Your task to perform on an android device: What's on my calendar tomorrow? Image 0: 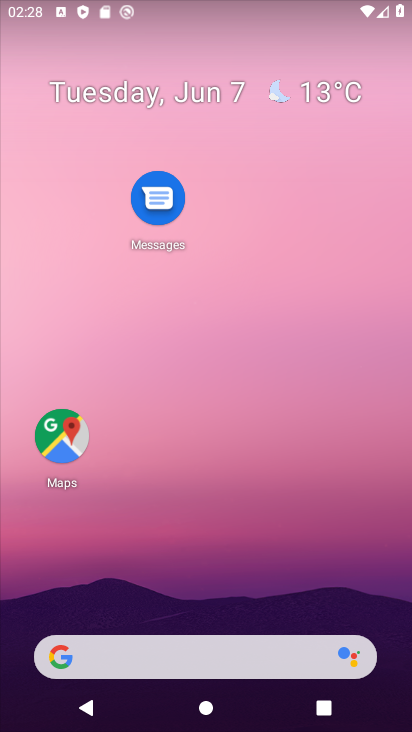
Step 0: drag from (229, 616) to (113, 13)
Your task to perform on an android device: What's on my calendar tomorrow? Image 1: 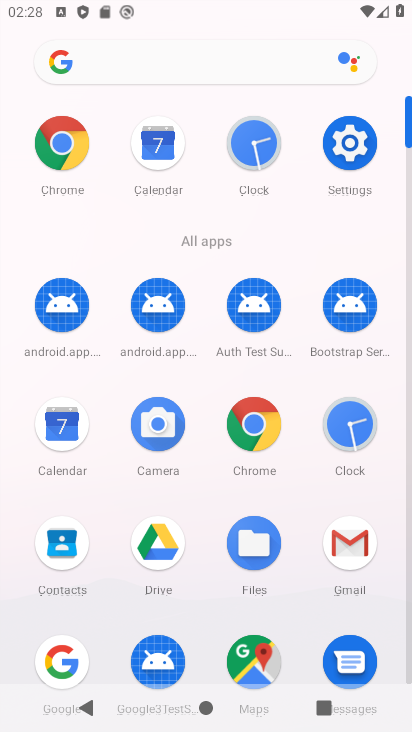
Step 1: click (68, 447)
Your task to perform on an android device: What's on my calendar tomorrow? Image 2: 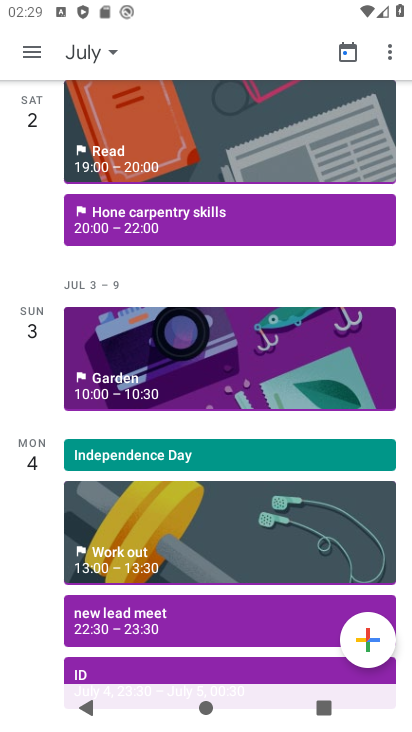
Step 2: drag from (204, 205) to (158, 562)
Your task to perform on an android device: What's on my calendar tomorrow? Image 3: 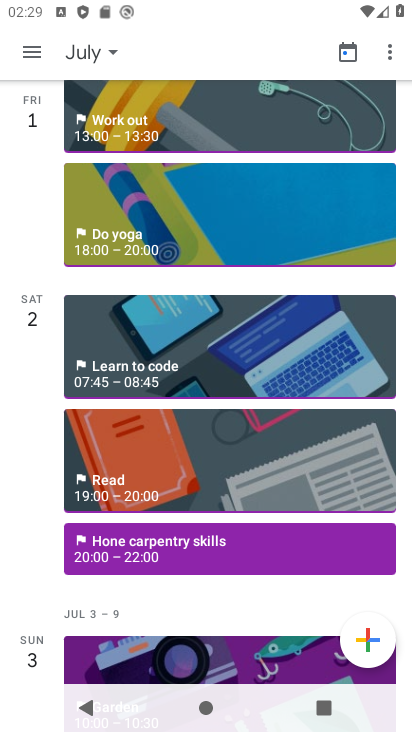
Step 3: drag from (220, 236) to (220, 579)
Your task to perform on an android device: What's on my calendar tomorrow? Image 4: 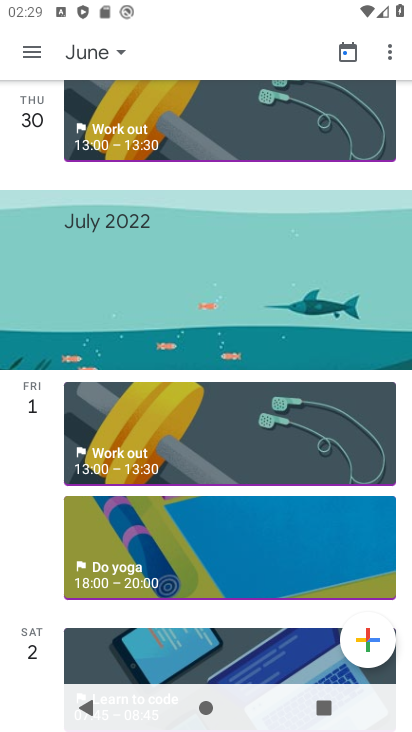
Step 4: drag from (178, 404) to (178, 597)
Your task to perform on an android device: What's on my calendar tomorrow? Image 5: 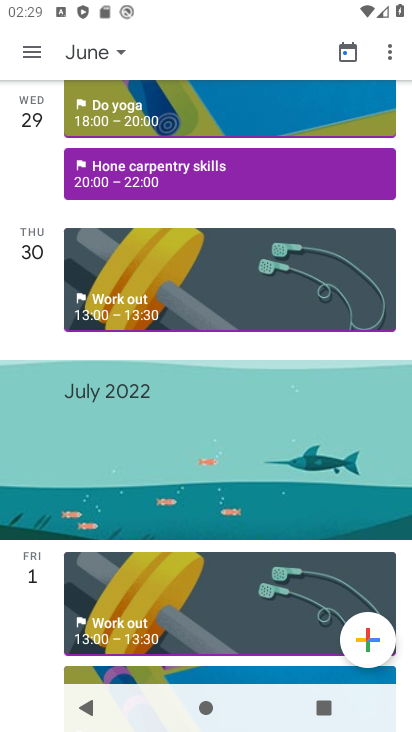
Step 5: drag from (196, 365) to (193, 571)
Your task to perform on an android device: What's on my calendar tomorrow? Image 6: 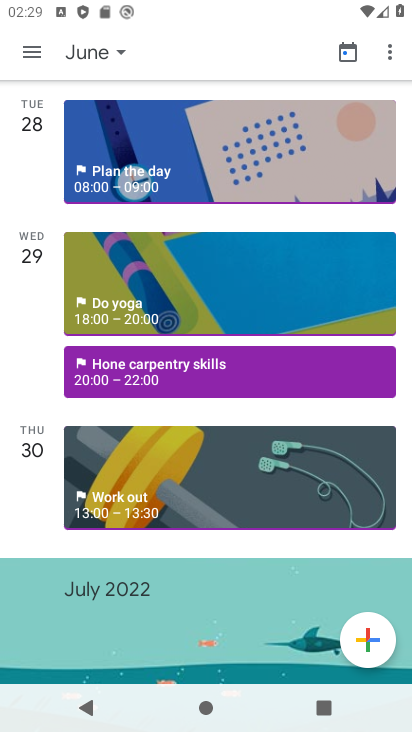
Step 6: drag from (192, 338) to (198, 601)
Your task to perform on an android device: What's on my calendar tomorrow? Image 7: 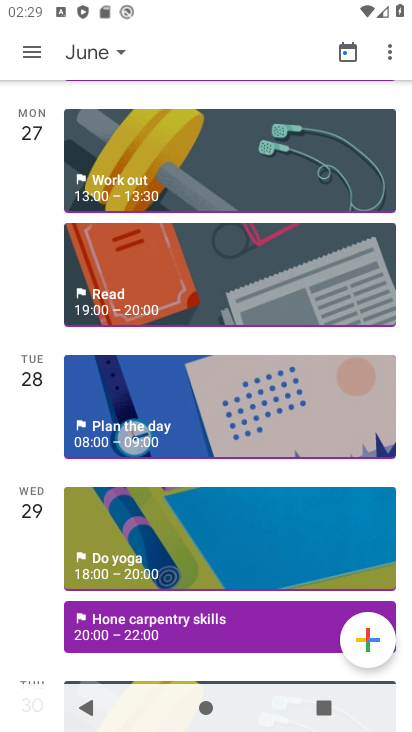
Step 7: drag from (189, 209) to (171, 416)
Your task to perform on an android device: What's on my calendar tomorrow? Image 8: 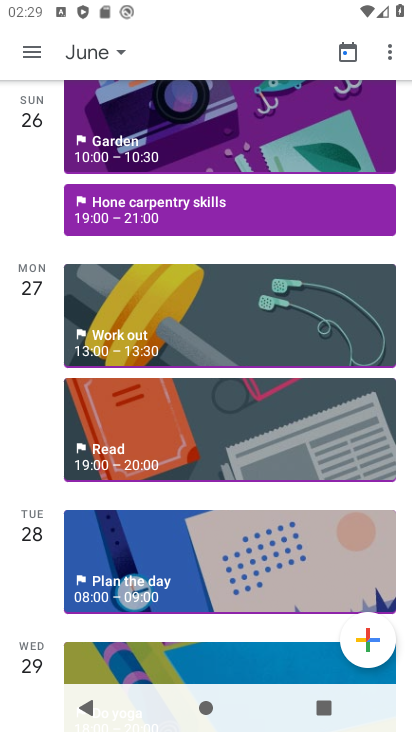
Step 8: click (45, 49)
Your task to perform on an android device: What's on my calendar tomorrow? Image 9: 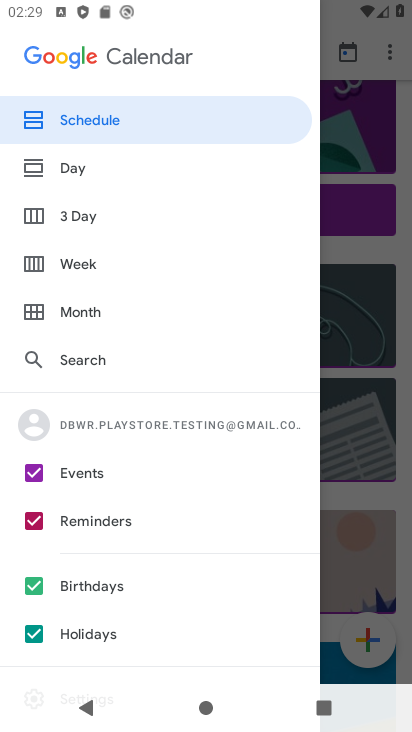
Step 9: click (69, 160)
Your task to perform on an android device: What's on my calendar tomorrow? Image 10: 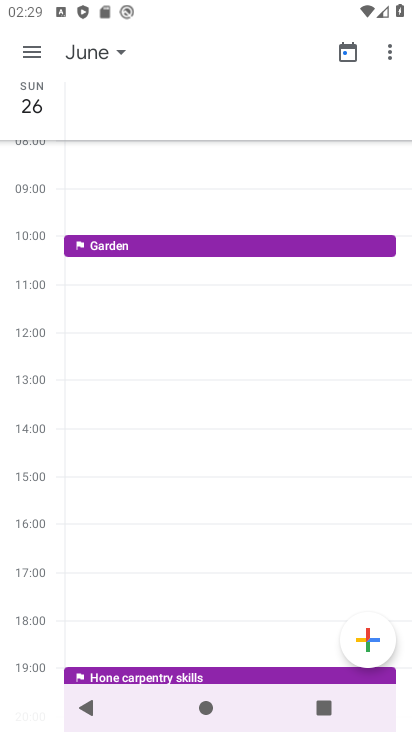
Step 10: drag from (127, 198) to (82, 651)
Your task to perform on an android device: What's on my calendar tomorrow? Image 11: 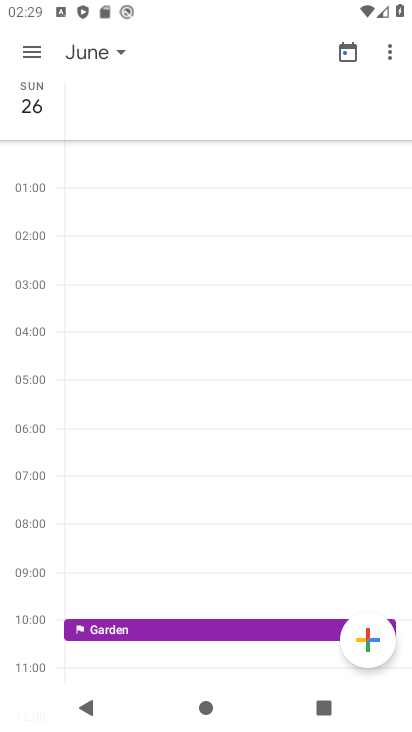
Step 11: click (54, 60)
Your task to perform on an android device: What's on my calendar tomorrow? Image 12: 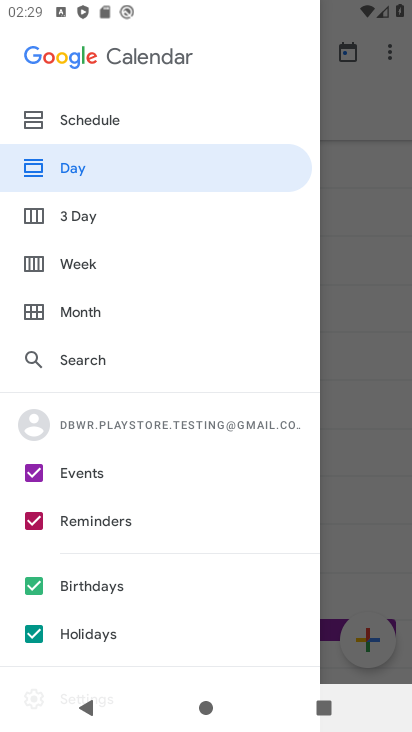
Step 12: click (75, 130)
Your task to perform on an android device: What's on my calendar tomorrow? Image 13: 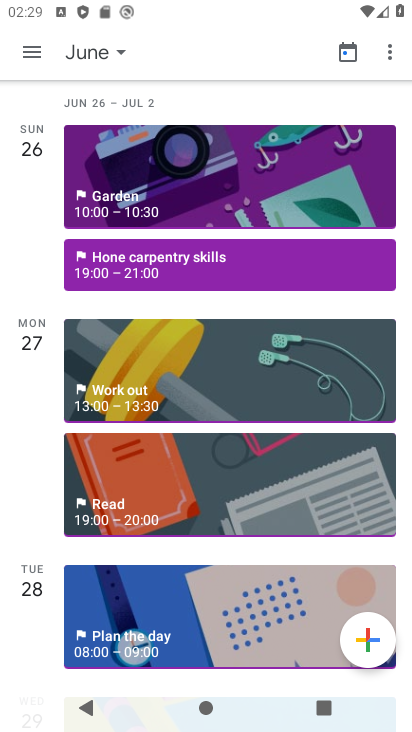
Step 13: drag from (207, 180) to (228, 680)
Your task to perform on an android device: What's on my calendar tomorrow? Image 14: 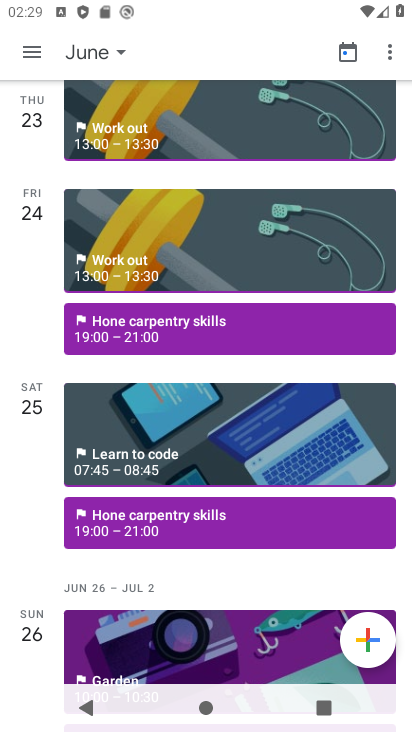
Step 14: drag from (232, 359) to (213, 596)
Your task to perform on an android device: What's on my calendar tomorrow? Image 15: 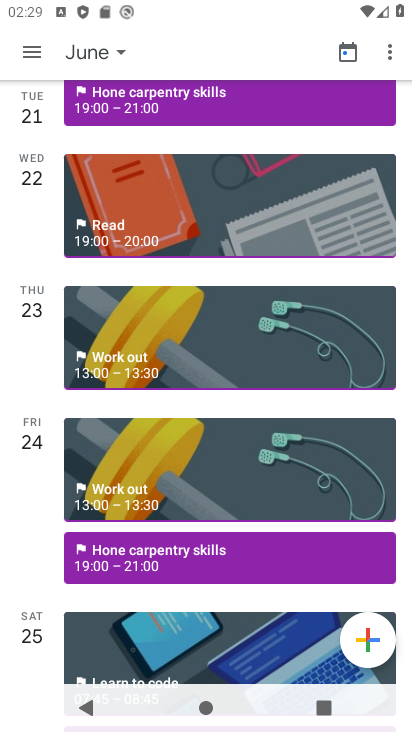
Step 15: drag from (195, 259) to (210, 530)
Your task to perform on an android device: What's on my calendar tomorrow? Image 16: 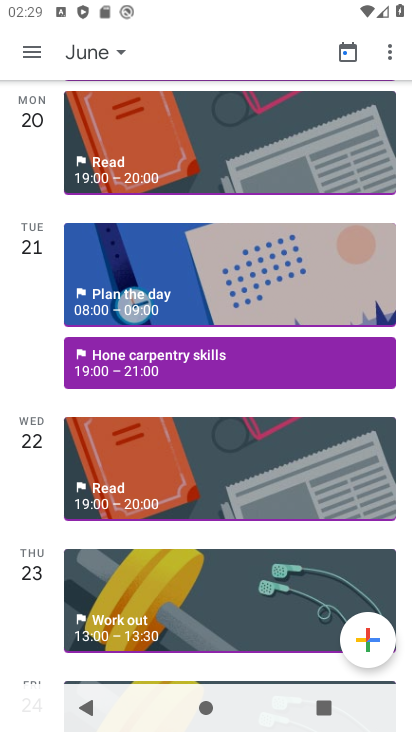
Step 16: drag from (189, 232) to (187, 388)
Your task to perform on an android device: What's on my calendar tomorrow? Image 17: 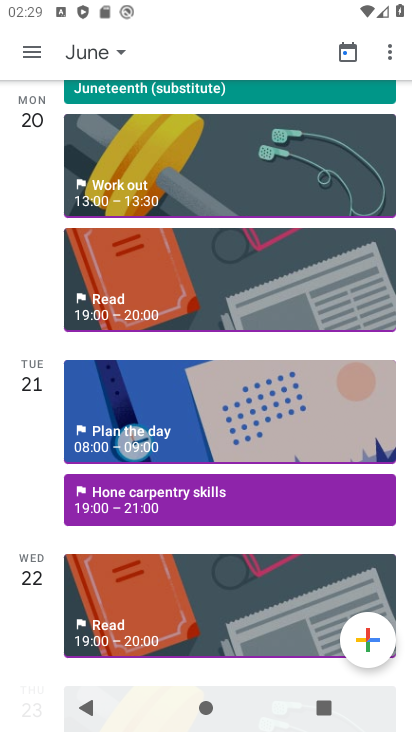
Step 17: drag from (154, 184) to (155, 403)
Your task to perform on an android device: What's on my calendar tomorrow? Image 18: 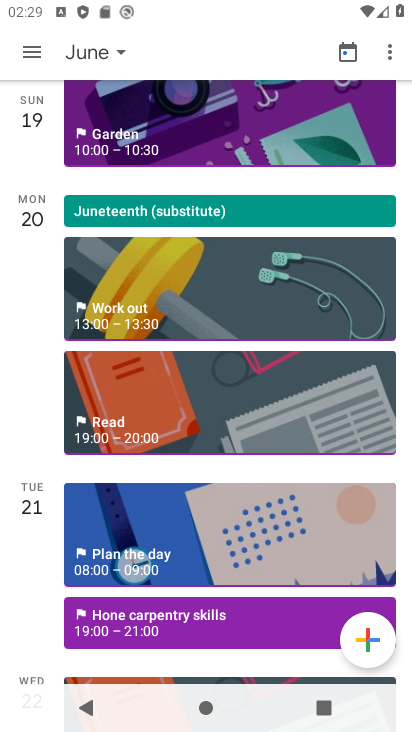
Step 18: drag from (187, 154) to (184, 306)
Your task to perform on an android device: What's on my calendar tomorrow? Image 19: 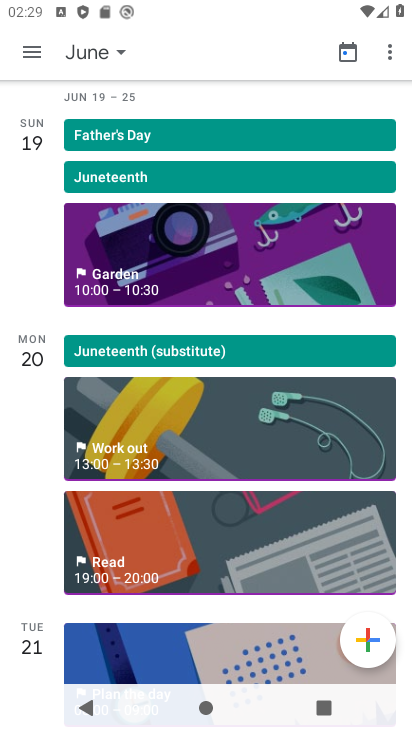
Step 19: drag from (208, 102) to (203, 317)
Your task to perform on an android device: What's on my calendar tomorrow? Image 20: 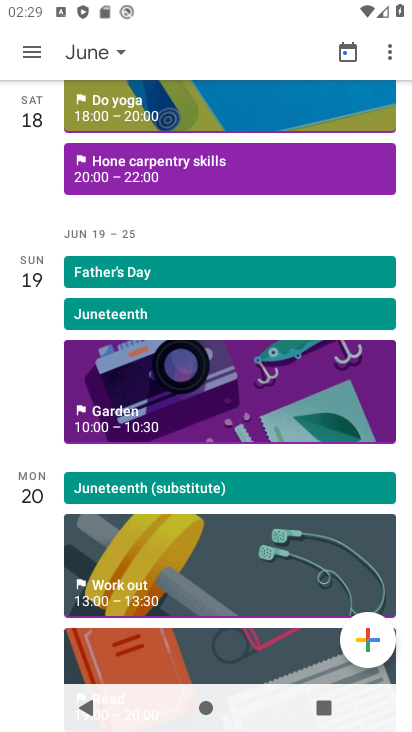
Step 20: drag from (219, 170) to (224, 387)
Your task to perform on an android device: What's on my calendar tomorrow? Image 21: 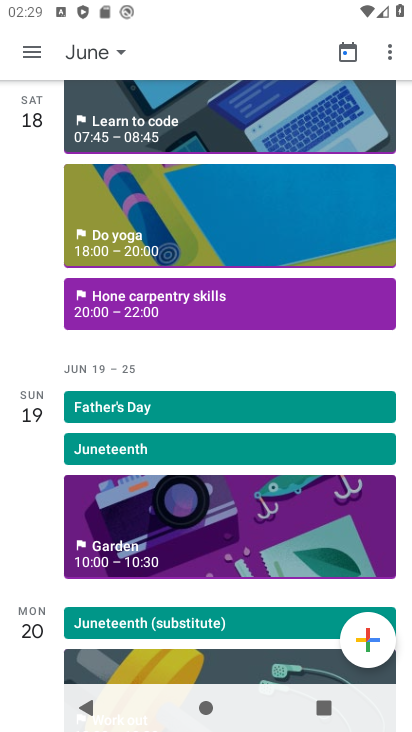
Step 21: drag from (198, 66) to (210, 366)
Your task to perform on an android device: What's on my calendar tomorrow? Image 22: 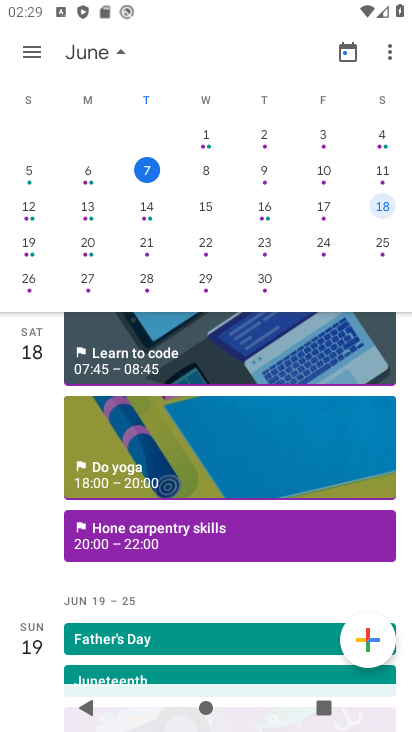
Step 22: drag from (223, 344) to (231, 497)
Your task to perform on an android device: What's on my calendar tomorrow? Image 23: 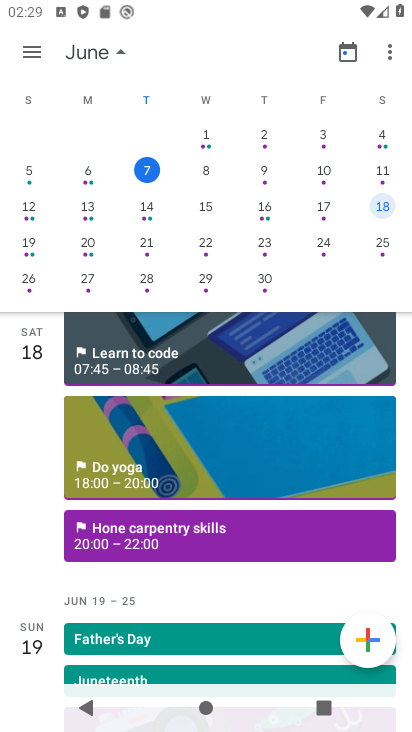
Step 23: drag from (203, 357) to (182, 567)
Your task to perform on an android device: What's on my calendar tomorrow? Image 24: 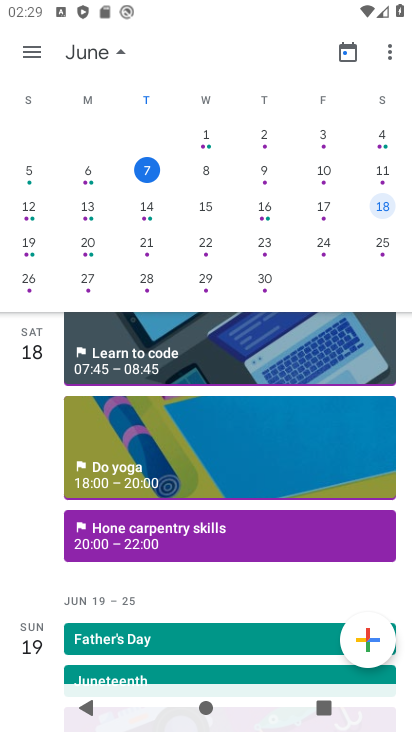
Step 24: drag from (154, 433) to (160, 549)
Your task to perform on an android device: What's on my calendar tomorrow? Image 25: 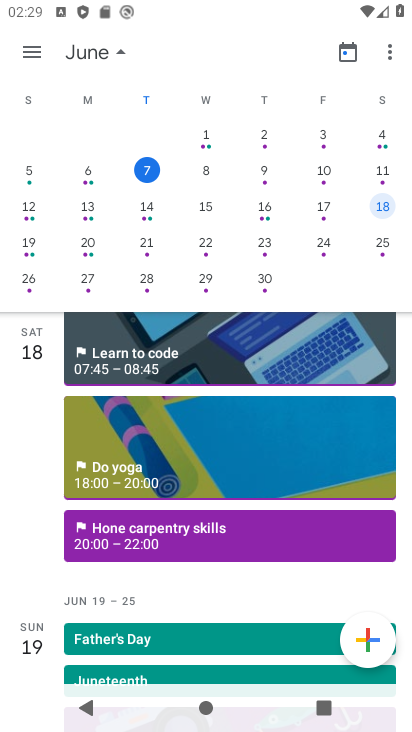
Step 25: click (153, 177)
Your task to perform on an android device: What's on my calendar tomorrow? Image 26: 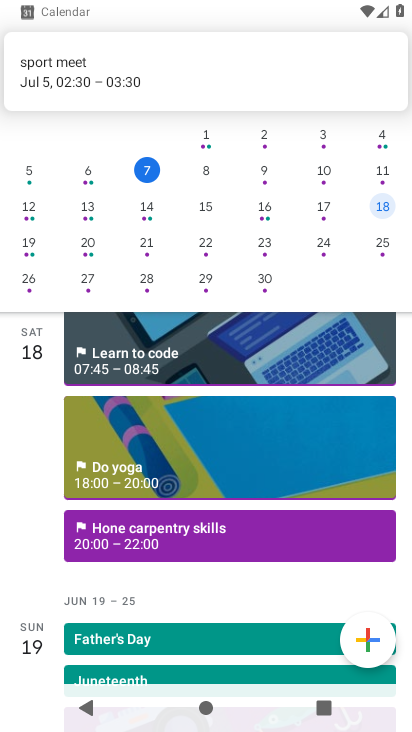
Step 26: click (153, 177)
Your task to perform on an android device: What's on my calendar tomorrow? Image 27: 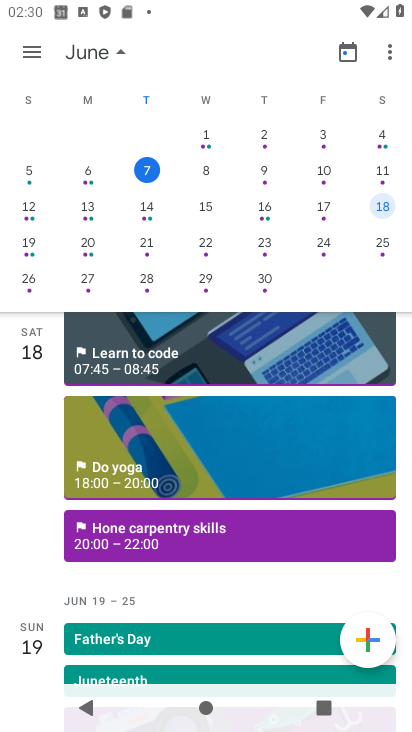
Step 27: click (147, 174)
Your task to perform on an android device: What's on my calendar tomorrow? Image 28: 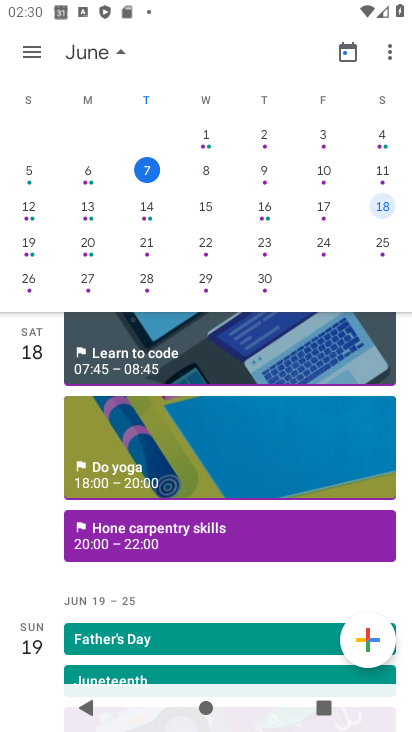
Step 28: click (137, 188)
Your task to perform on an android device: What's on my calendar tomorrow? Image 29: 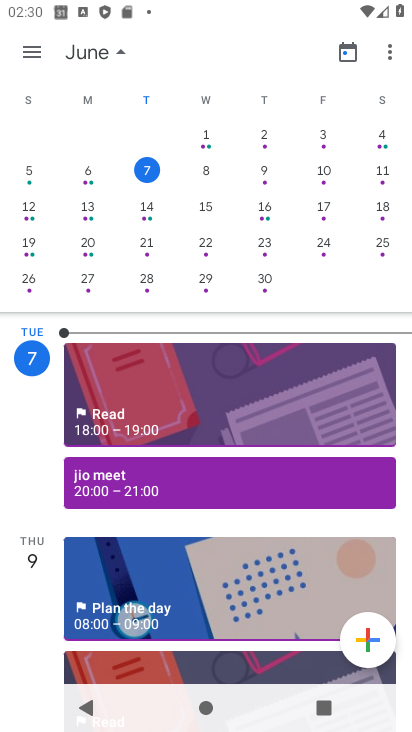
Step 29: click (146, 180)
Your task to perform on an android device: What's on my calendar tomorrow? Image 30: 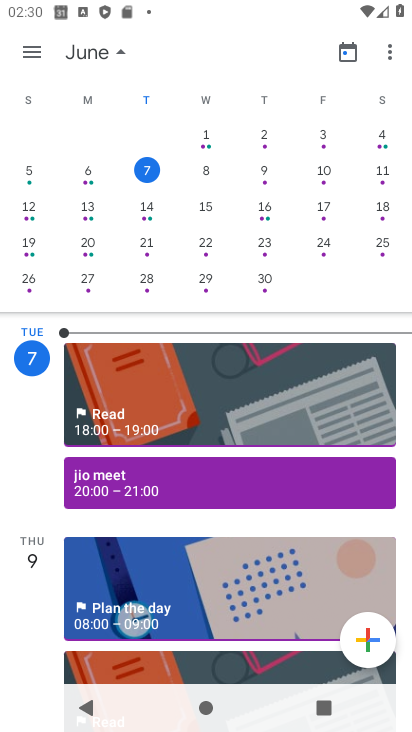
Step 30: task complete